Your task to perform on an android device: Toggle the flashlight Image 0: 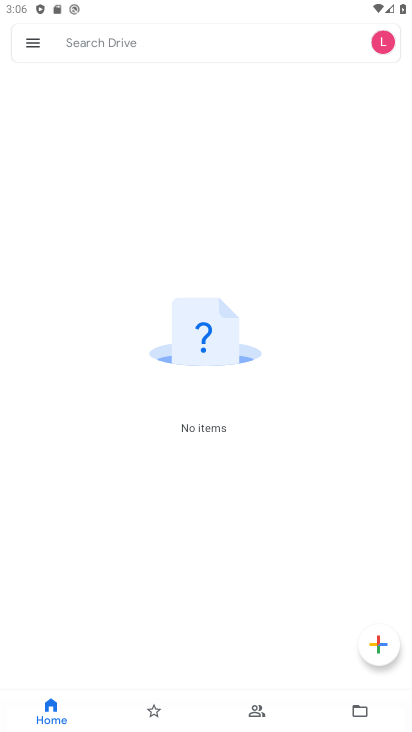
Step 0: press home button
Your task to perform on an android device: Toggle the flashlight Image 1: 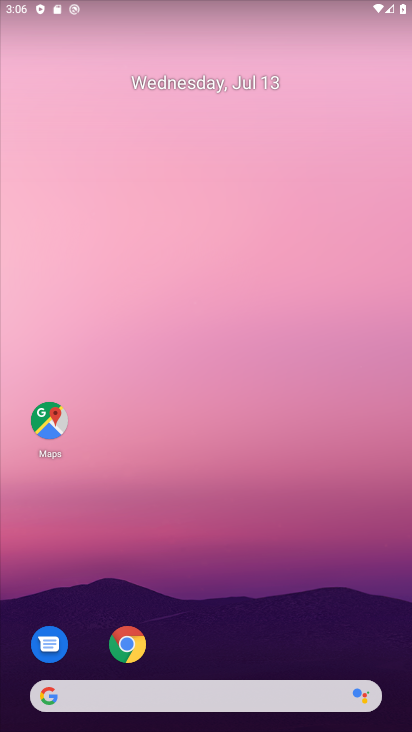
Step 1: drag from (203, 653) to (155, 253)
Your task to perform on an android device: Toggle the flashlight Image 2: 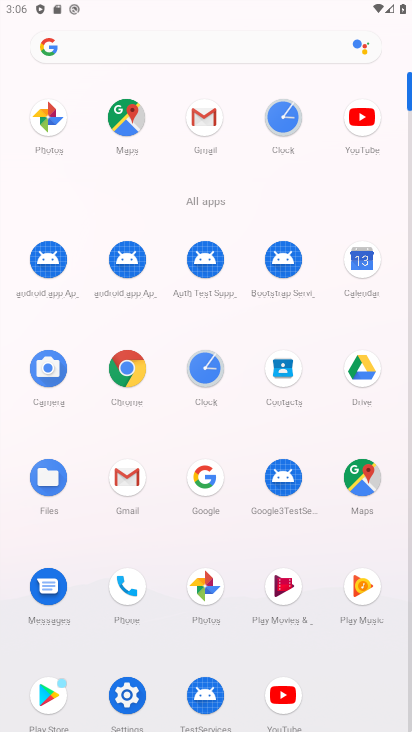
Step 2: click (124, 699)
Your task to perform on an android device: Toggle the flashlight Image 3: 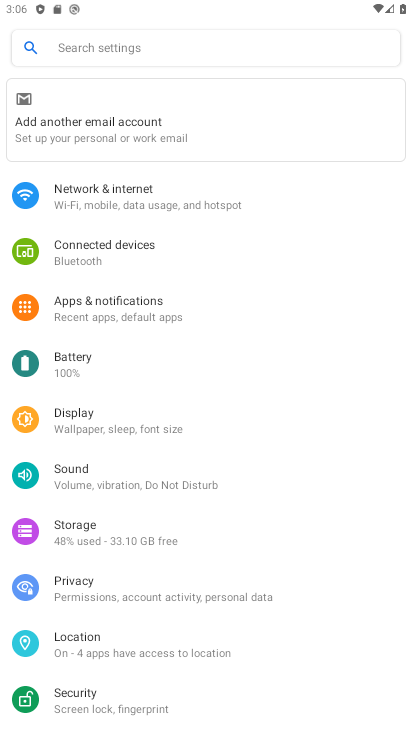
Step 3: task complete